Your task to perform on an android device: turn on javascript in the chrome app Image 0: 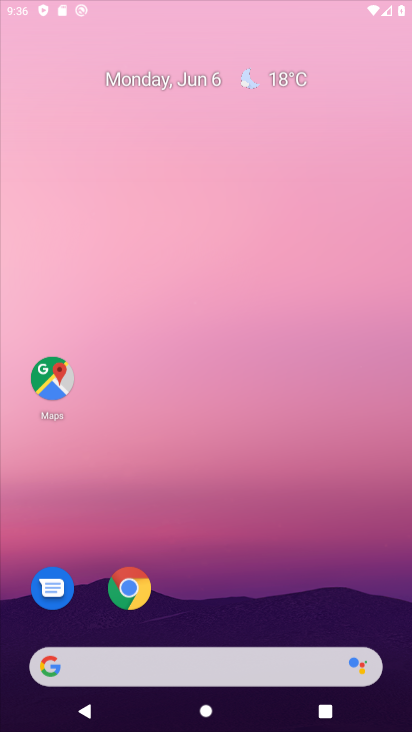
Step 0: press home button
Your task to perform on an android device: turn on javascript in the chrome app Image 1: 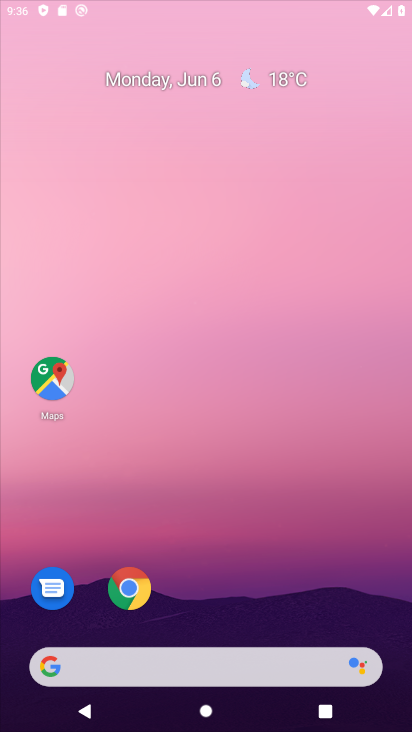
Step 1: drag from (228, 625) to (253, 174)
Your task to perform on an android device: turn on javascript in the chrome app Image 2: 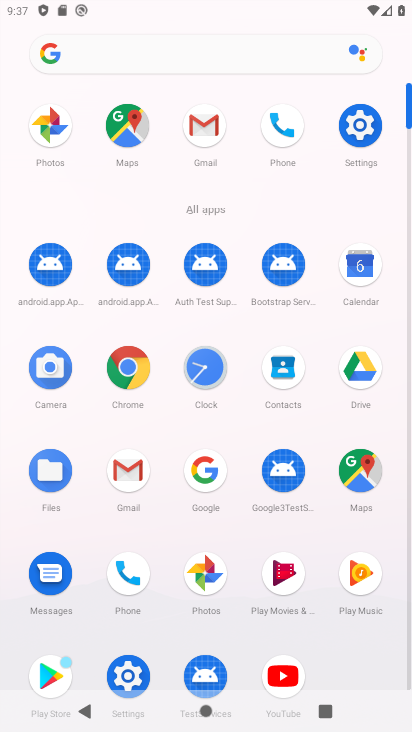
Step 2: click (128, 360)
Your task to perform on an android device: turn on javascript in the chrome app Image 3: 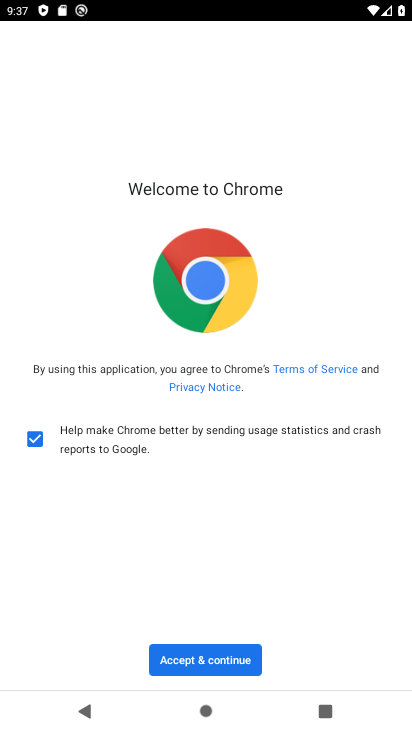
Step 3: click (207, 650)
Your task to perform on an android device: turn on javascript in the chrome app Image 4: 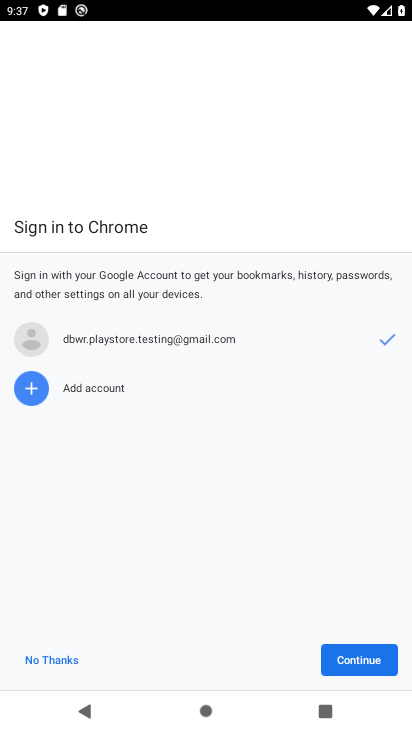
Step 4: click (363, 654)
Your task to perform on an android device: turn on javascript in the chrome app Image 5: 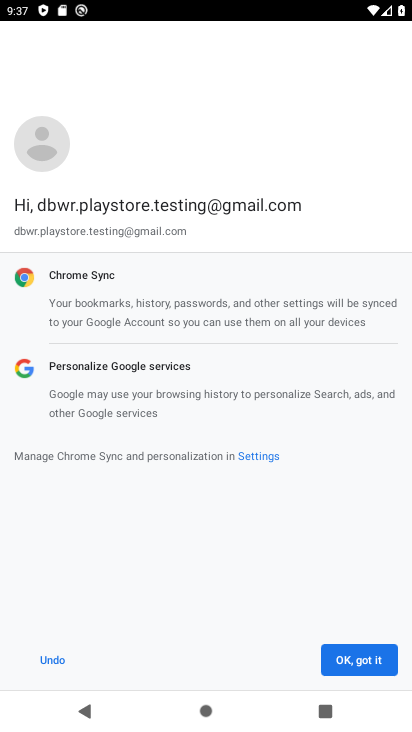
Step 5: click (349, 655)
Your task to perform on an android device: turn on javascript in the chrome app Image 6: 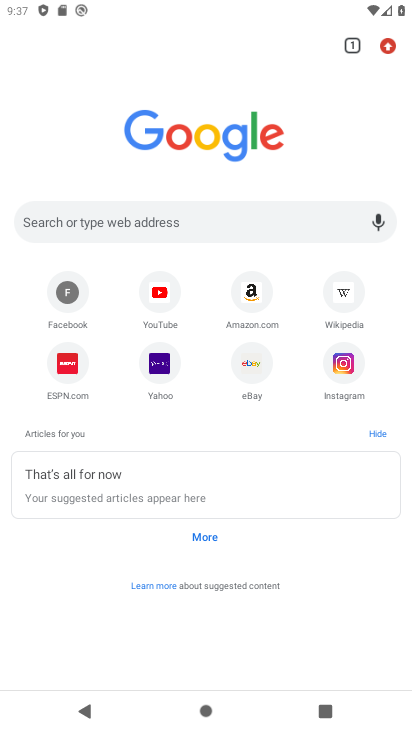
Step 6: click (389, 43)
Your task to perform on an android device: turn on javascript in the chrome app Image 7: 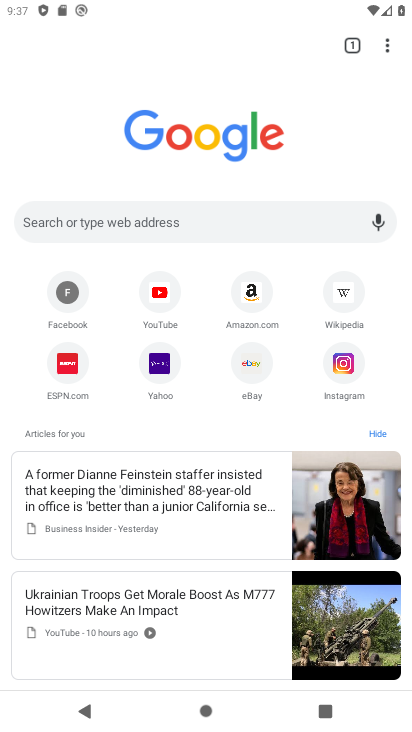
Step 7: click (389, 43)
Your task to perform on an android device: turn on javascript in the chrome app Image 8: 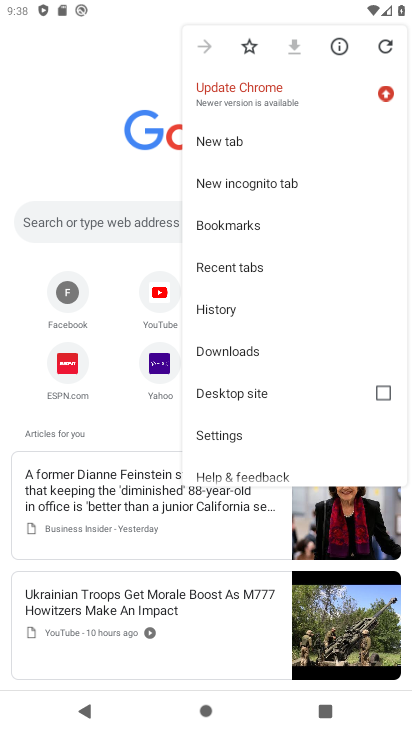
Step 8: click (259, 432)
Your task to perform on an android device: turn on javascript in the chrome app Image 9: 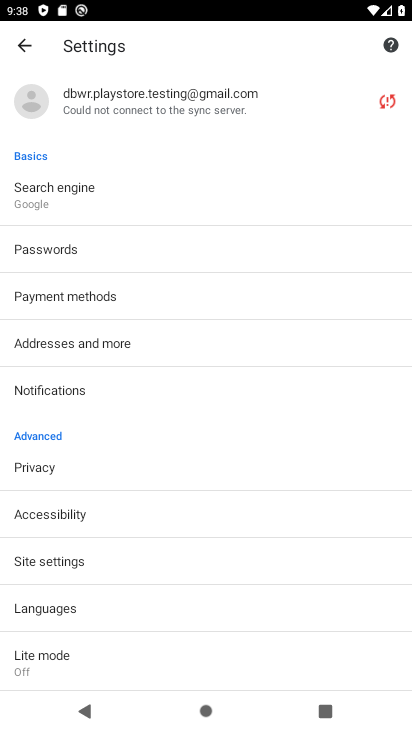
Step 9: click (113, 556)
Your task to perform on an android device: turn on javascript in the chrome app Image 10: 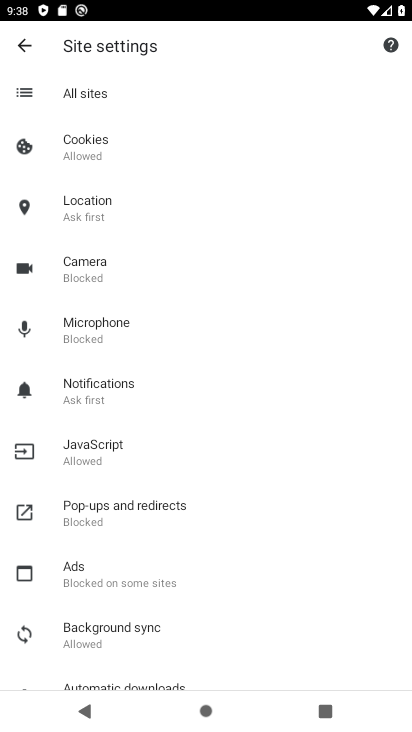
Step 10: click (132, 452)
Your task to perform on an android device: turn on javascript in the chrome app Image 11: 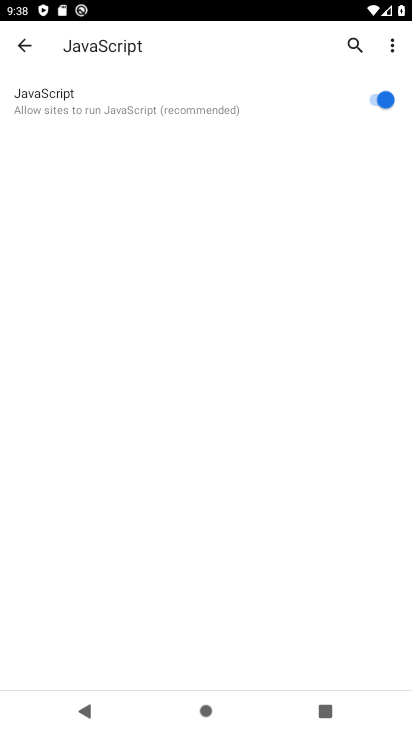
Step 11: task complete